Your task to perform on an android device: turn off data saver in the chrome app Image 0: 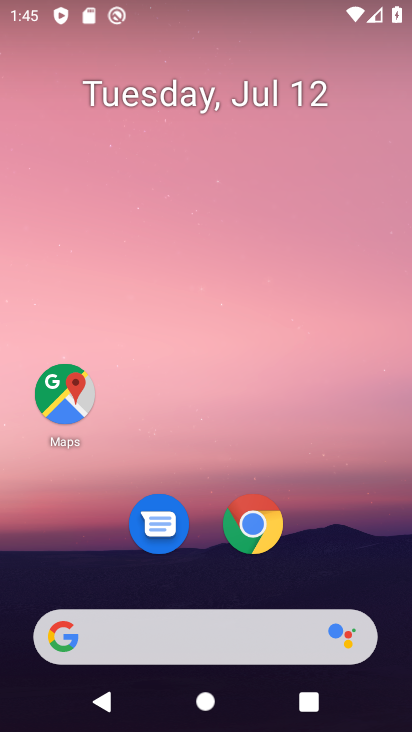
Step 0: click (265, 534)
Your task to perform on an android device: turn off data saver in the chrome app Image 1: 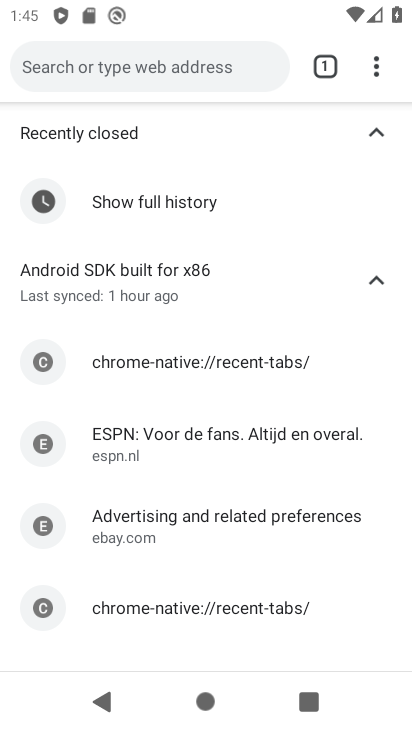
Step 1: click (379, 63)
Your task to perform on an android device: turn off data saver in the chrome app Image 2: 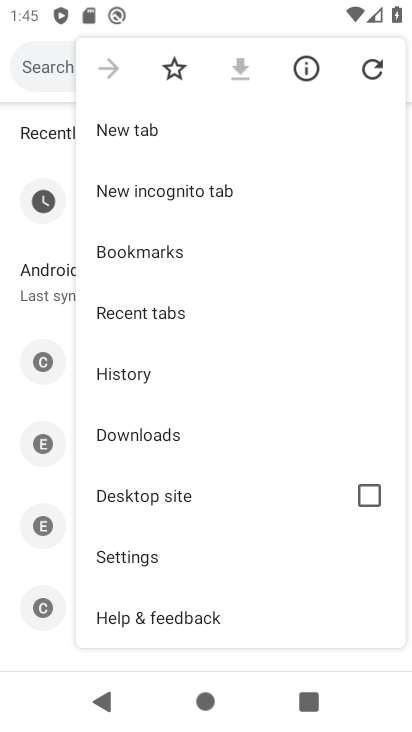
Step 2: click (148, 558)
Your task to perform on an android device: turn off data saver in the chrome app Image 3: 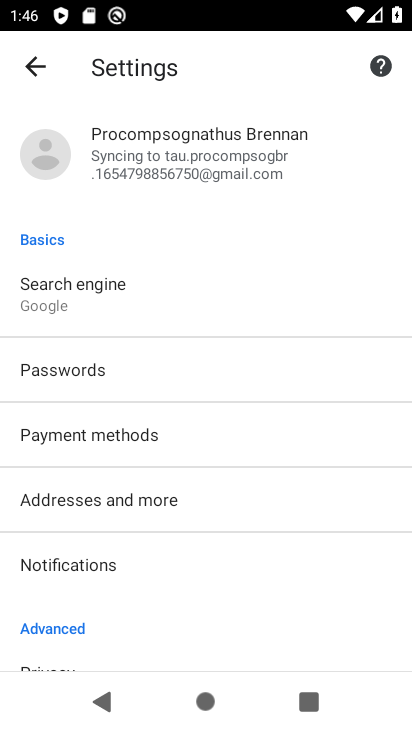
Step 3: drag from (233, 579) to (301, 242)
Your task to perform on an android device: turn off data saver in the chrome app Image 4: 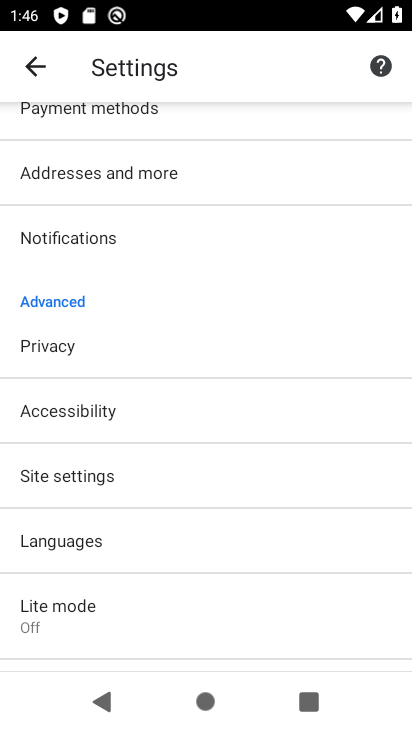
Step 4: click (103, 608)
Your task to perform on an android device: turn off data saver in the chrome app Image 5: 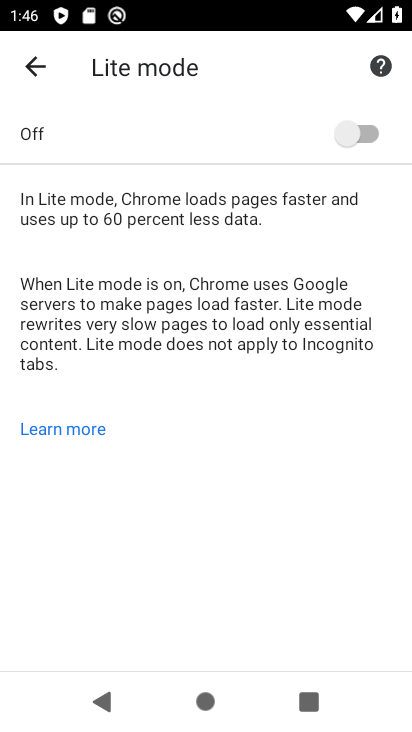
Step 5: task complete